Your task to perform on an android device: Open Youtube and go to "Your channel" Image 0: 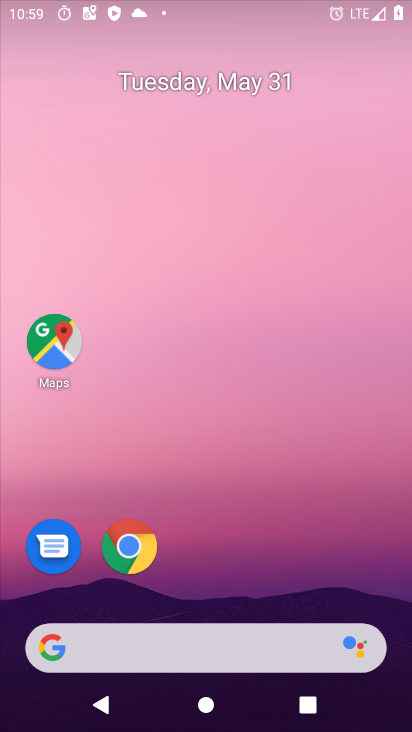
Step 0: drag from (211, 628) to (216, 199)
Your task to perform on an android device: Open Youtube and go to "Your channel" Image 1: 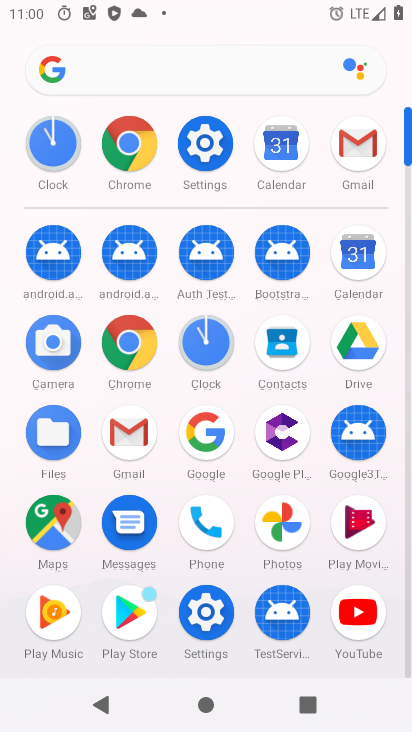
Step 1: click (355, 615)
Your task to perform on an android device: Open Youtube and go to "Your channel" Image 2: 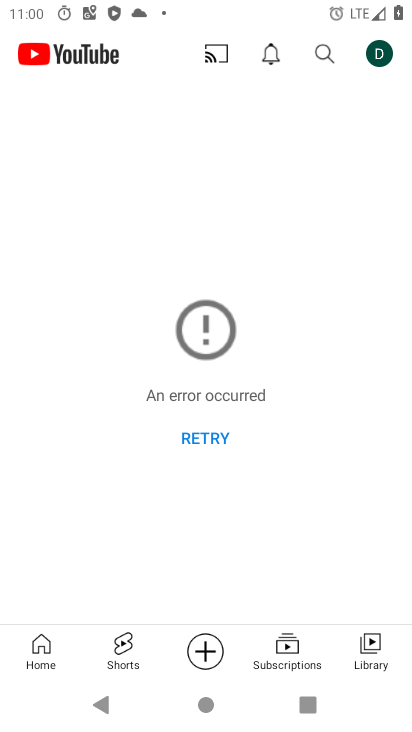
Step 2: click (374, 65)
Your task to perform on an android device: Open Youtube and go to "Your channel" Image 3: 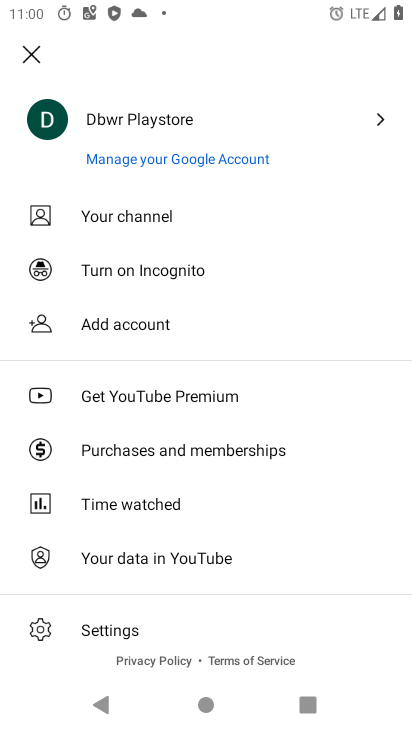
Step 3: click (188, 212)
Your task to perform on an android device: Open Youtube and go to "Your channel" Image 4: 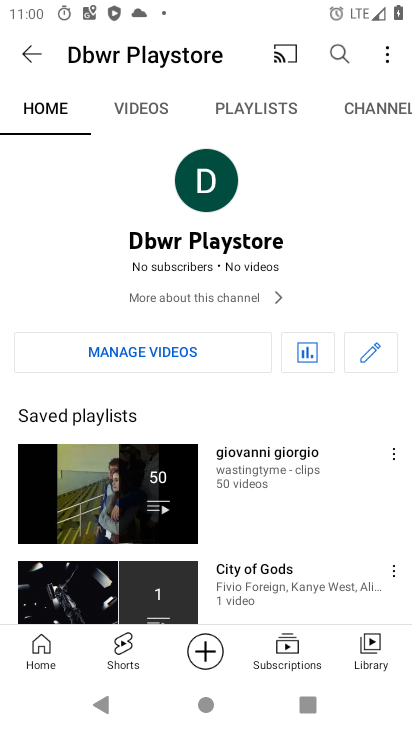
Step 4: task complete